Your task to perform on an android device: What's the weather? Image 0: 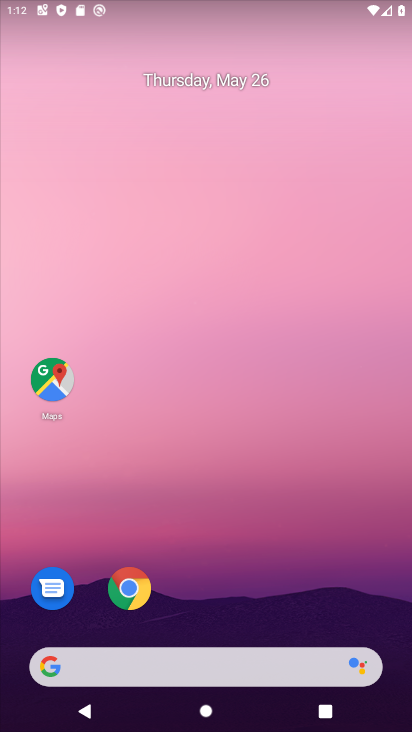
Step 0: drag from (1, 255) to (371, 189)
Your task to perform on an android device: What's the weather? Image 1: 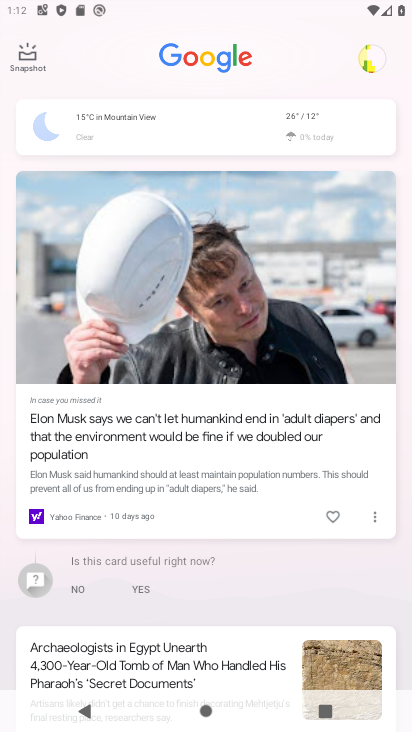
Step 1: click (309, 122)
Your task to perform on an android device: What's the weather? Image 2: 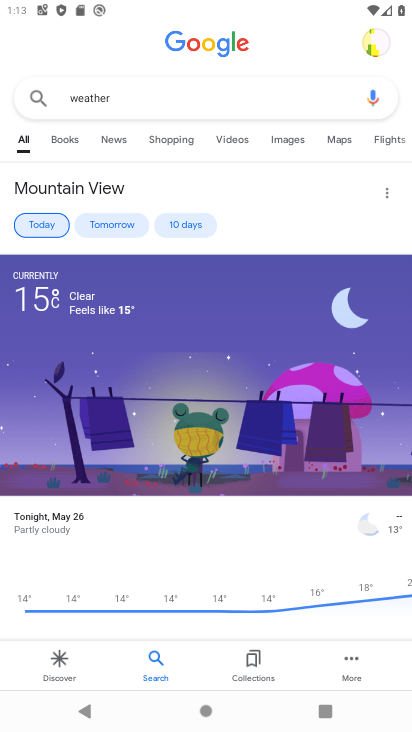
Step 2: click (47, 226)
Your task to perform on an android device: What's the weather? Image 3: 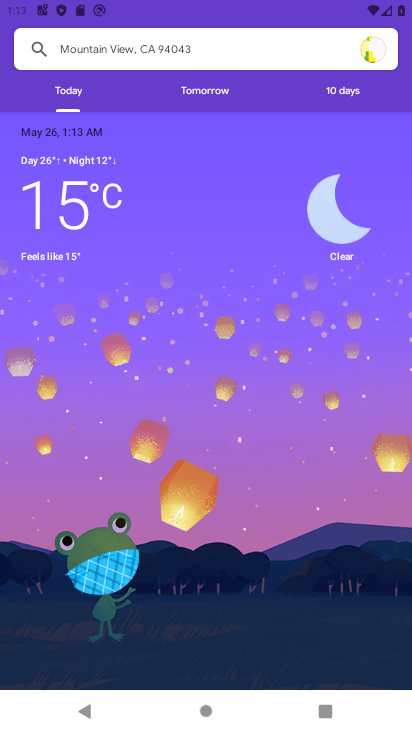
Step 3: task complete